Your task to perform on an android device: Go to settings Image 0: 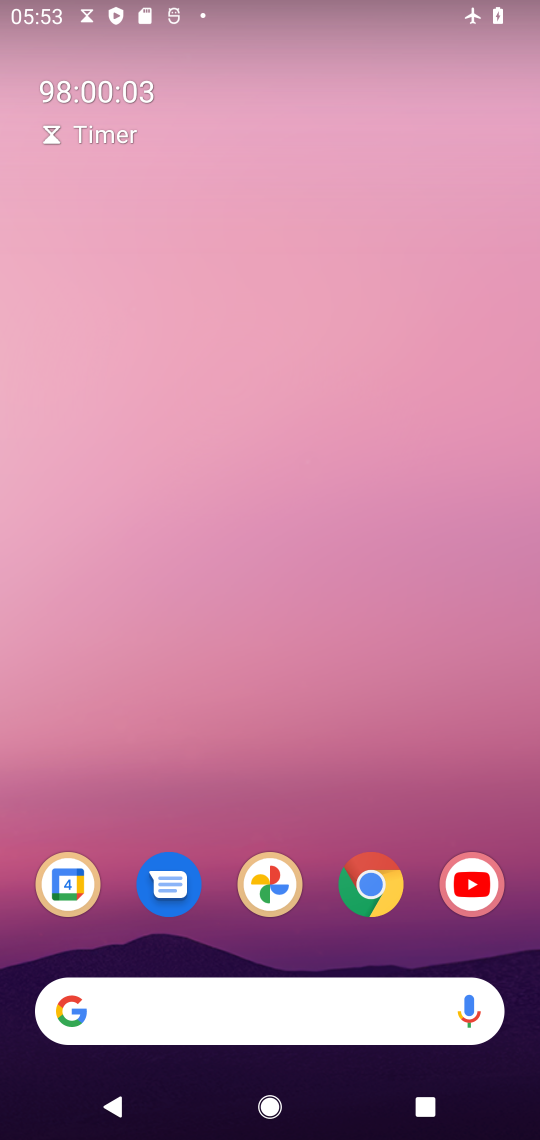
Step 0: drag from (231, 940) to (252, 449)
Your task to perform on an android device: Go to settings Image 1: 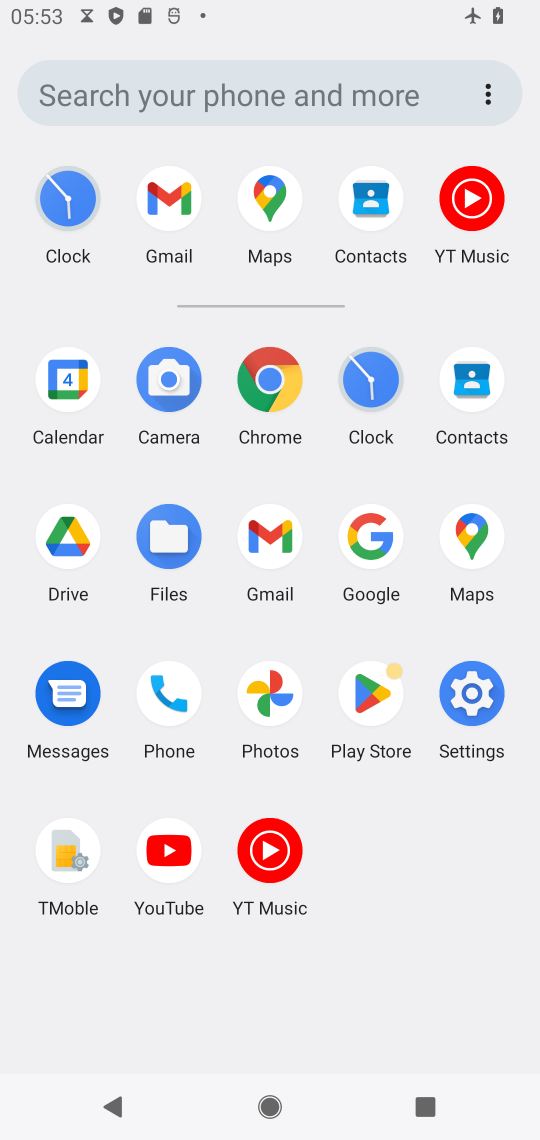
Step 1: click (492, 691)
Your task to perform on an android device: Go to settings Image 2: 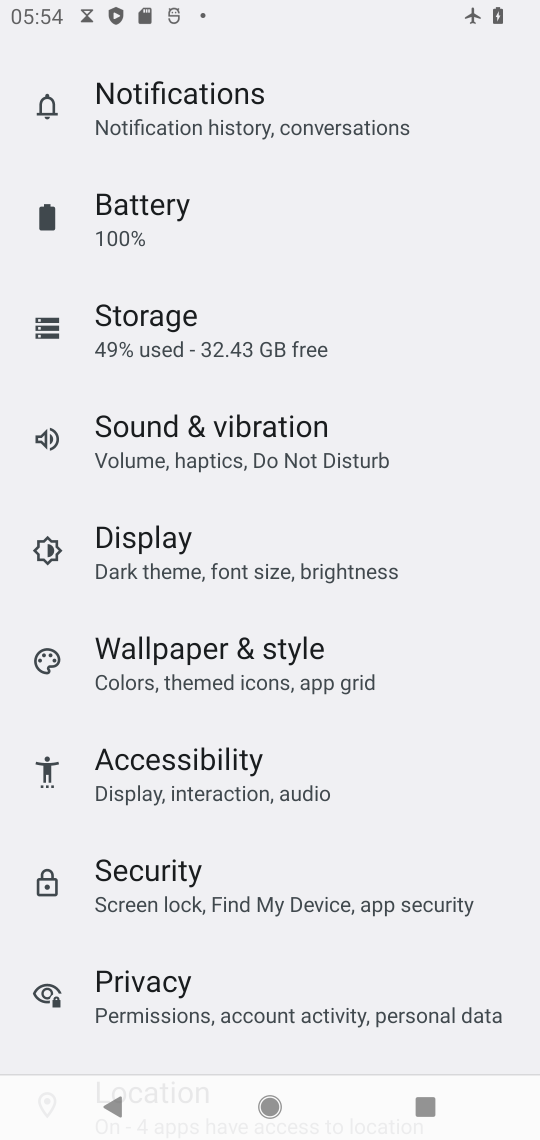
Step 2: task complete